Your task to perform on an android device: see creations saved in the google photos Image 0: 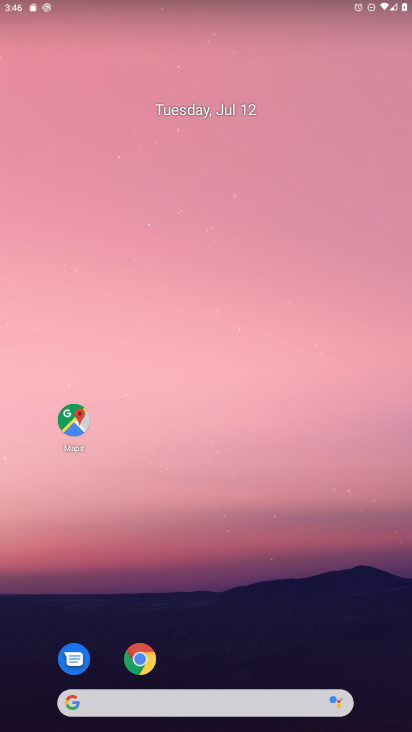
Step 0: press home button
Your task to perform on an android device: see creations saved in the google photos Image 1: 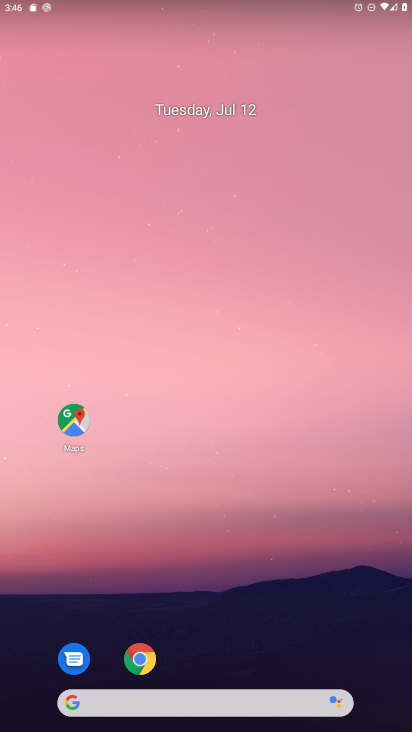
Step 1: drag from (213, 499) to (207, 26)
Your task to perform on an android device: see creations saved in the google photos Image 2: 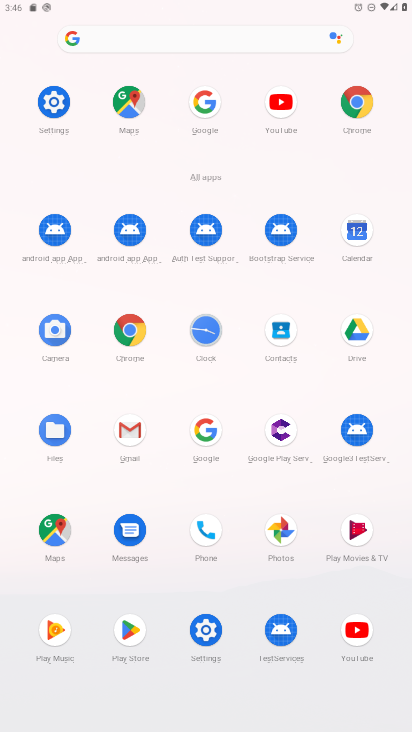
Step 2: click (275, 553)
Your task to perform on an android device: see creations saved in the google photos Image 3: 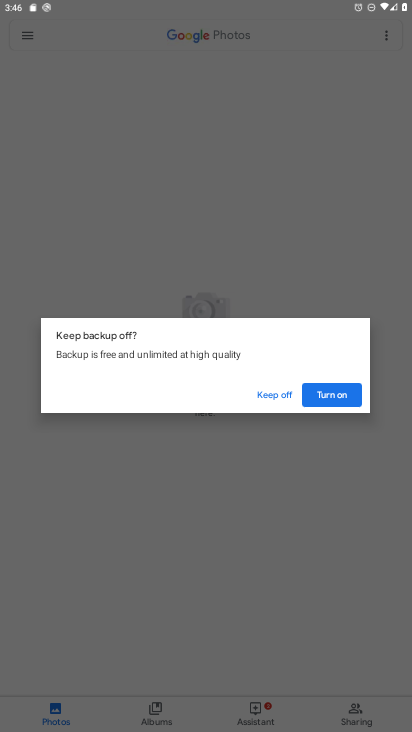
Step 3: click (319, 391)
Your task to perform on an android device: see creations saved in the google photos Image 4: 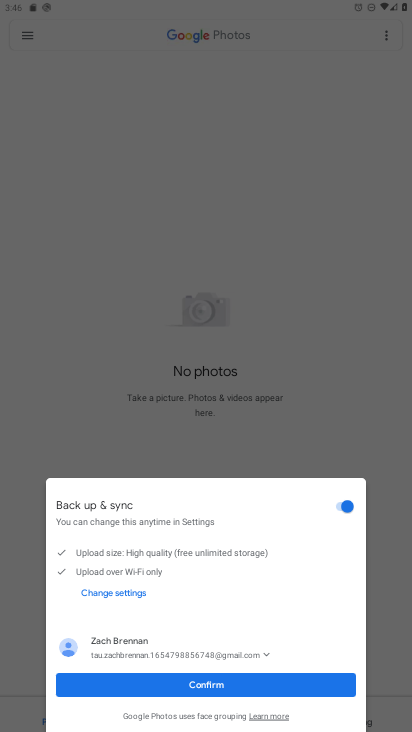
Step 4: click (205, 678)
Your task to perform on an android device: see creations saved in the google photos Image 5: 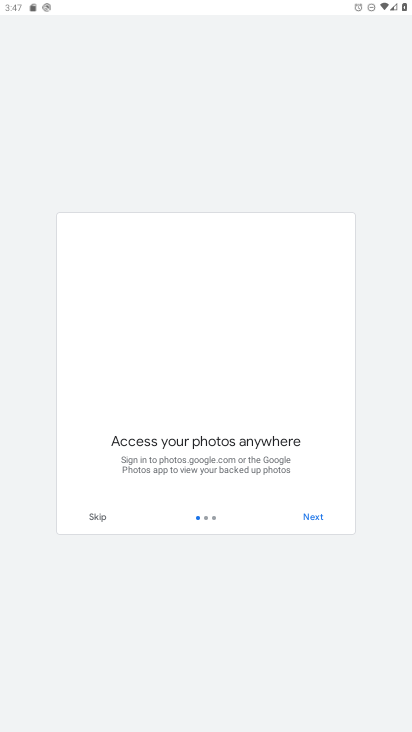
Step 5: click (313, 525)
Your task to perform on an android device: see creations saved in the google photos Image 6: 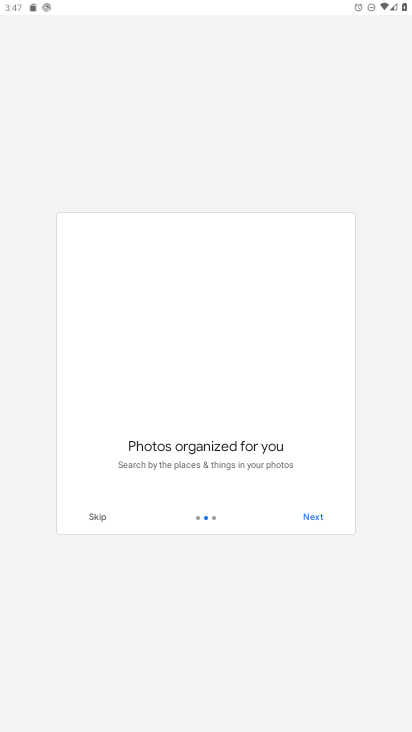
Step 6: click (311, 516)
Your task to perform on an android device: see creations saved in the google photos Image 7: 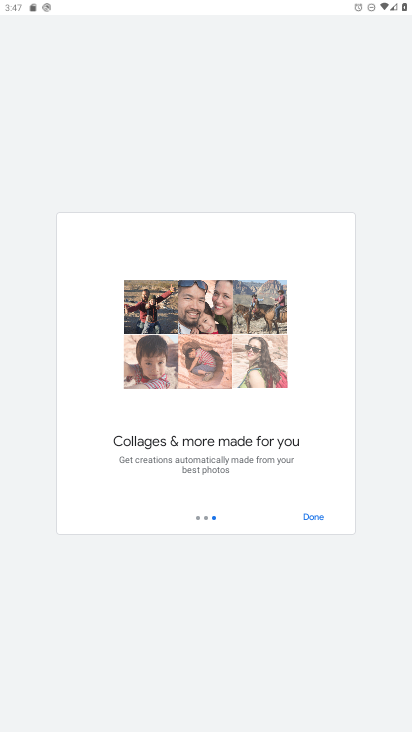
Step 7: click (311, 516)
Your task to perform on an android device: see creations saved in the google photos Image 8: 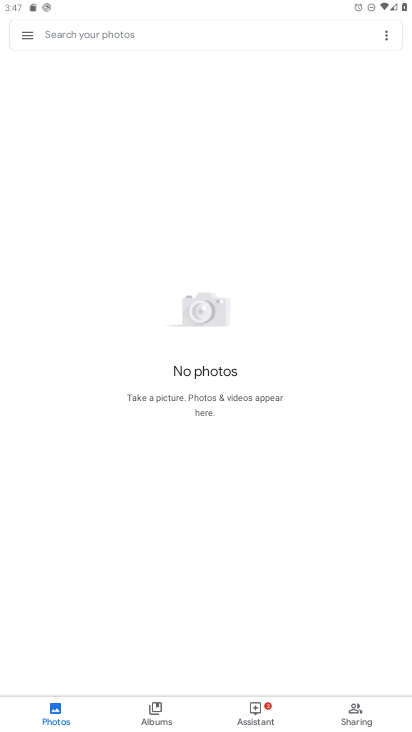
Step 8: click (311, 516)
Your task to perform on an android device: see creations saved in the google photos Image 9: 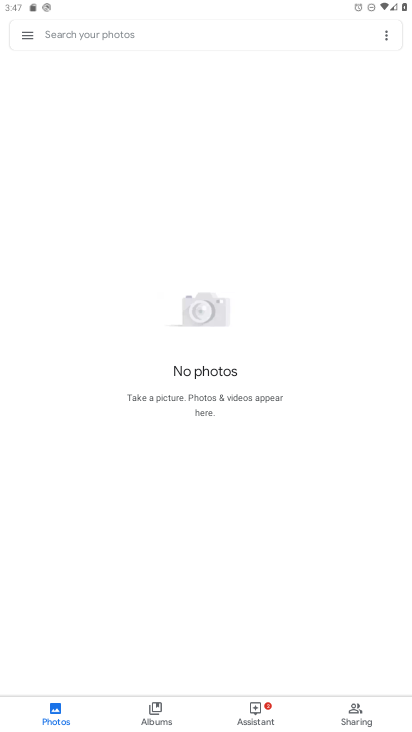
Step 9: click (143, 33)
Your task to perform on an android device: see creations saved in the google photos Image 10: 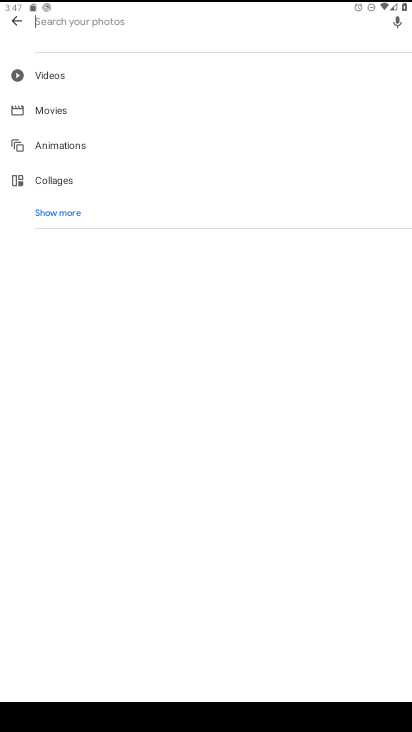
Step 10: click (59, 213)
Your task to perform on an android device: see creations saved in the google photos Image 11: 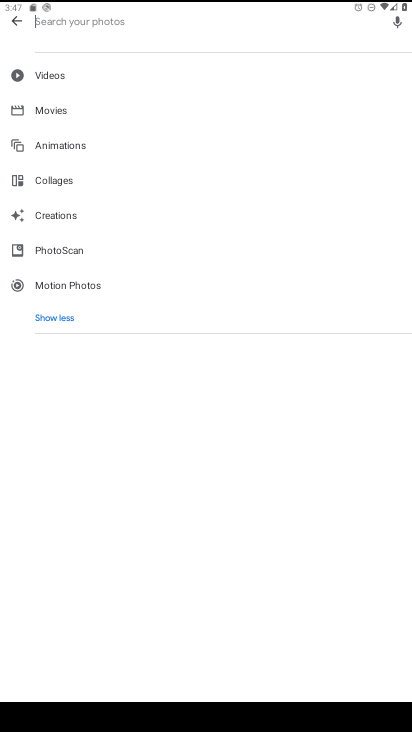
Step 11: click (54, 213)
Your task to perform on an android device: see creations saved in the google photos Image 12: 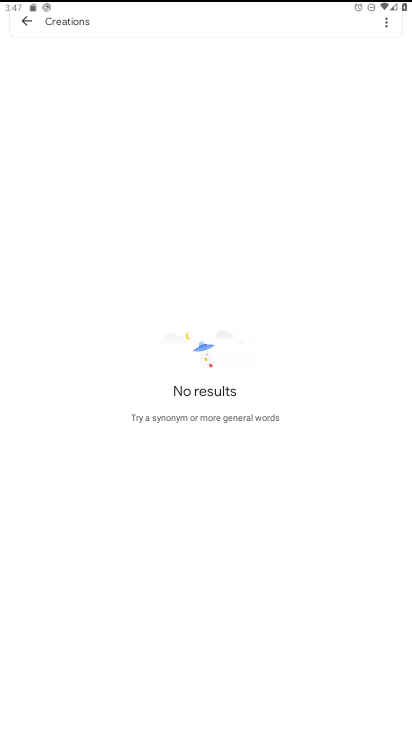
Step 12: task complete